Your task to perform on an android device: Open Google Image 0: 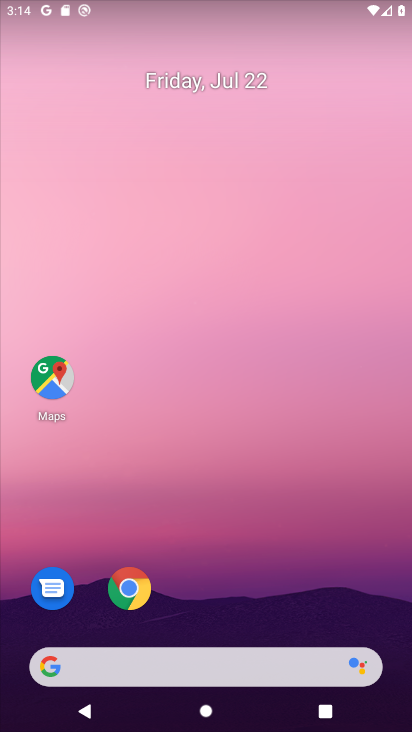
Step 0: drag from (270, 520) to (282, 112)
Your task to perform on an android device: Open Google Image 1: 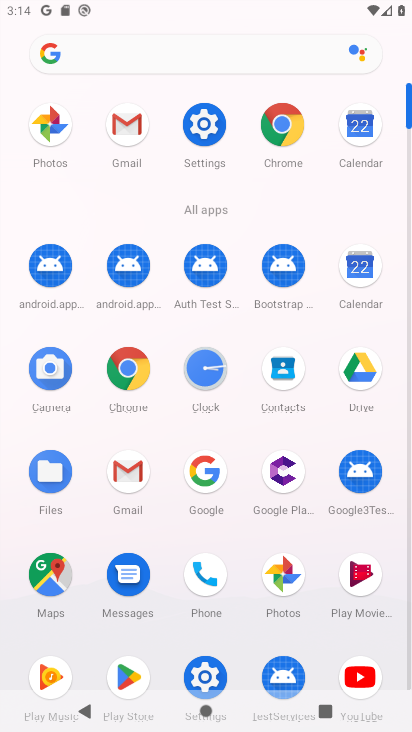
Step 1: click (209, 468)
Your task to perform on an android device: Open Google Image 2: 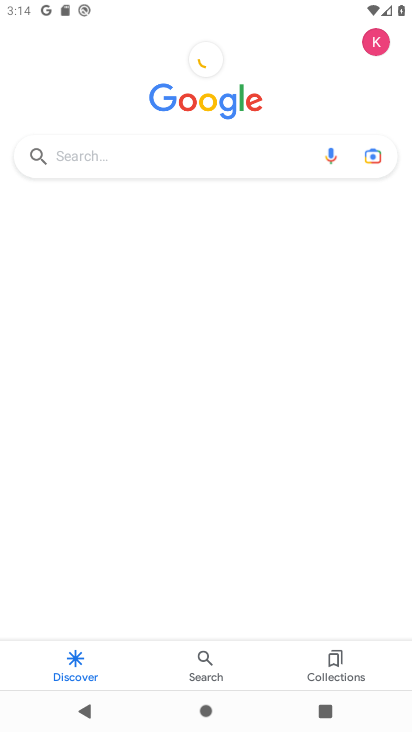
Step 2: task complete